Your task to perform on an android device: delete a single message in the gmail app Image 0: 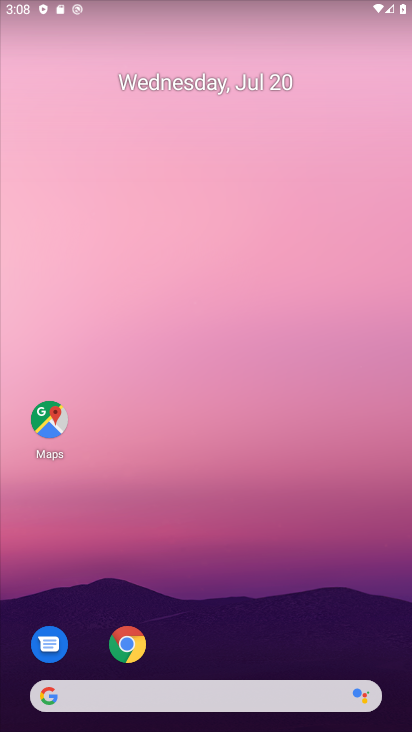
Step 0: drag from (33, 675) to (166, 124)
Your task to perform on an android device: delete a single message in the gmail app Image 1: 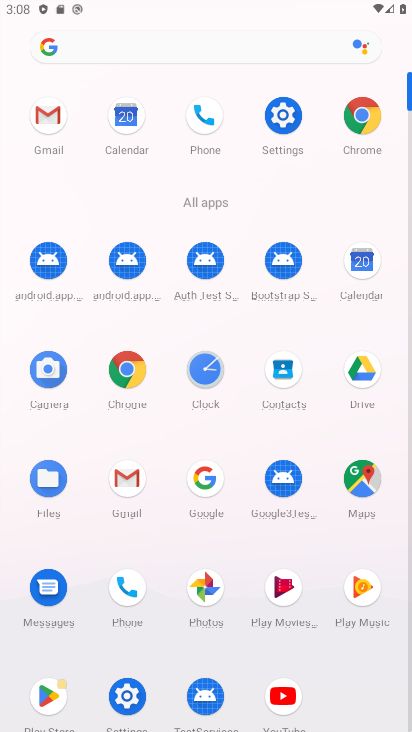
Step 1: click (123, 488)
Your task to perform on an android device: delete a single message in the gmail app Image 2: 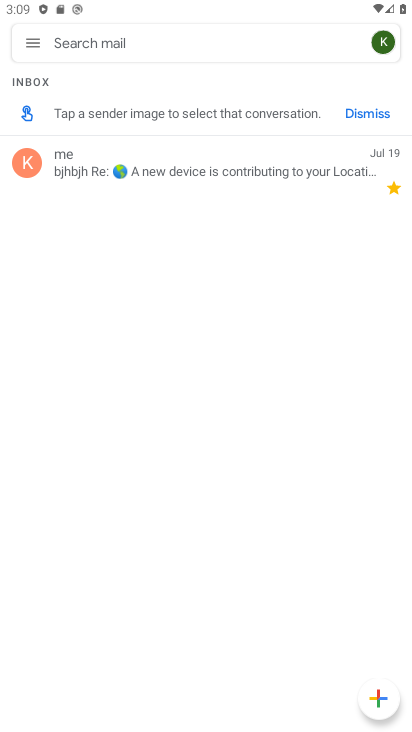
Step 2: click (37, 44)
Your task to perform on an android device: delete a single message in the gmail app Image 3: 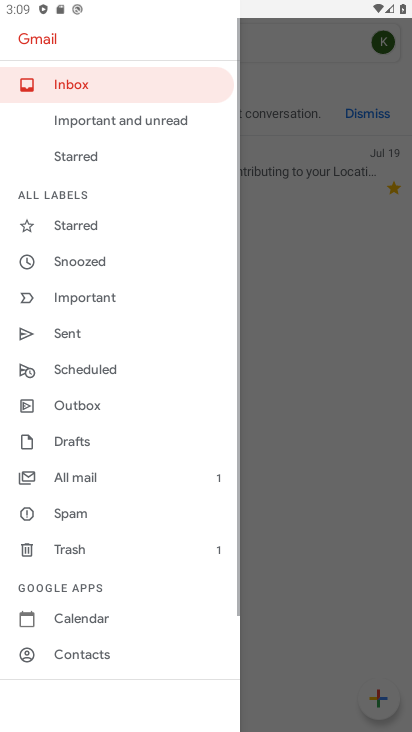
Step 3: click (59, 74)
Your task to perform on an android device: delete a single message in the gmail app Image 4: 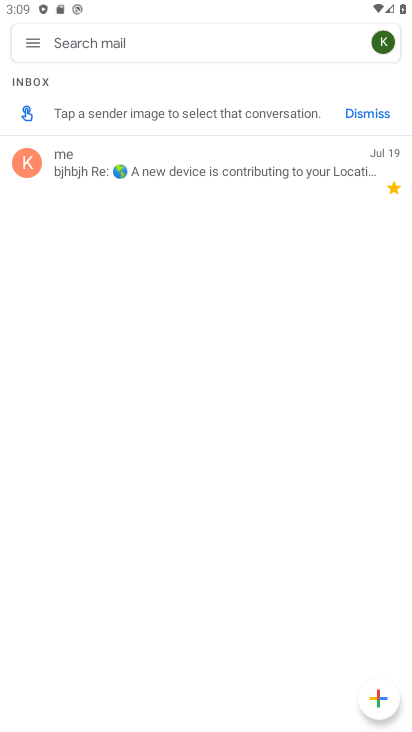
Step 4: click (157, 159)
Your task to perform on an android device: delete a single message in the gmail app Image 5: 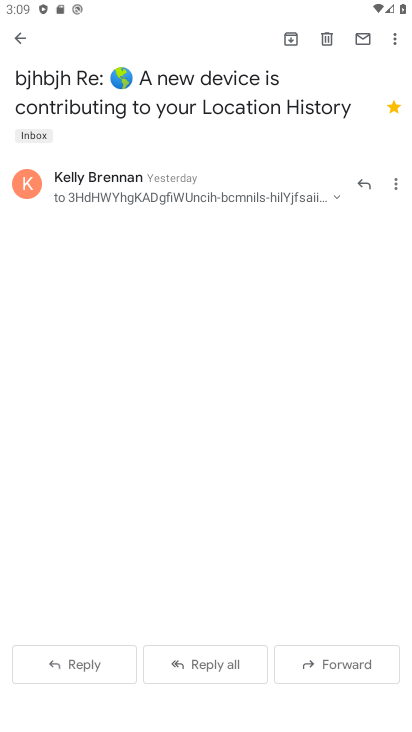
Step 5: click (325, 34)
Your task to perform on an android device: delete a single message in the gmail app Image 6: 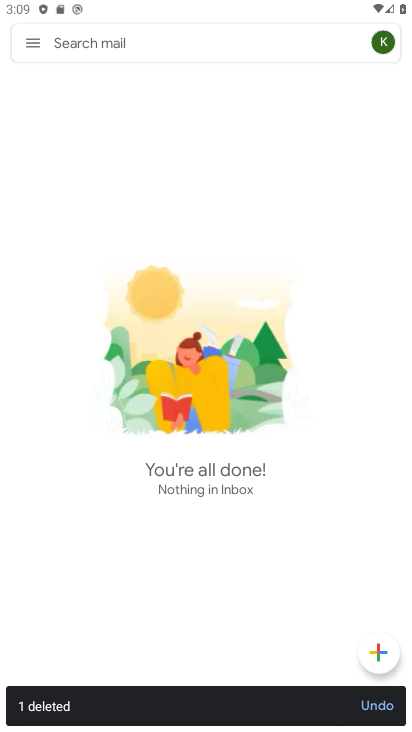
Step 6: task complete